Your task to perform on an android device: Open calendar and show me the first week of next month Image 0: 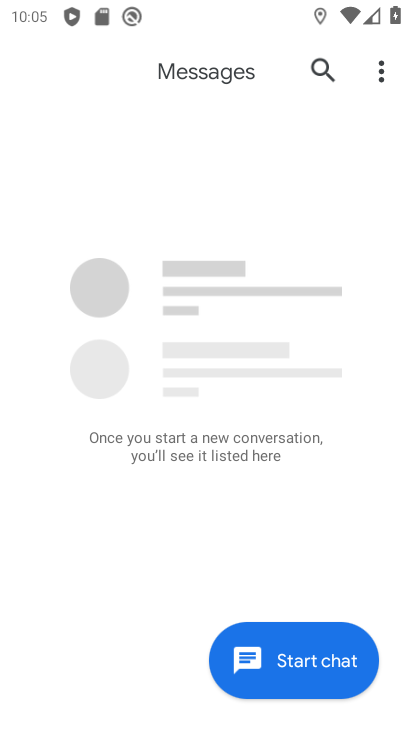
Step 0: press home button
Your task to perform on an android device: Open calendar and show me the first week of next month Image 1: 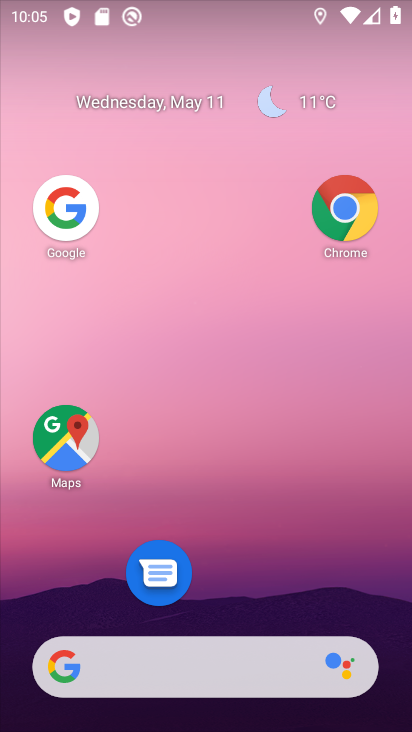
Step 1: drag from (207, 625) to (392, 465)
Your task to perform on an android device: Open calendar and show me the first week of next month Image 2: 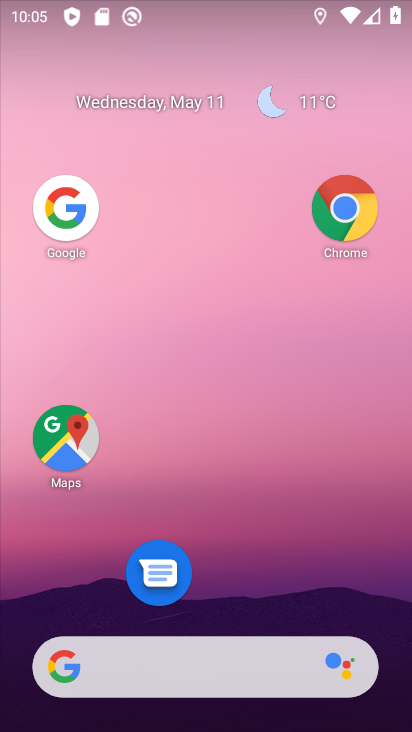
Step 2: drag from (228, 604) to (308, 17)
Your task to perform on an android device: Open calendar and show me the first week of next month Image 3: 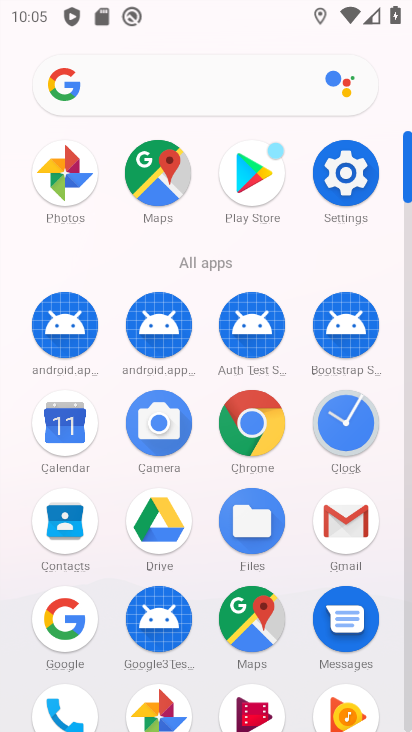
Step 3: click (49, 442)
Your task to perform on an android device: Open calendar and show me the first week of next month Image 4: 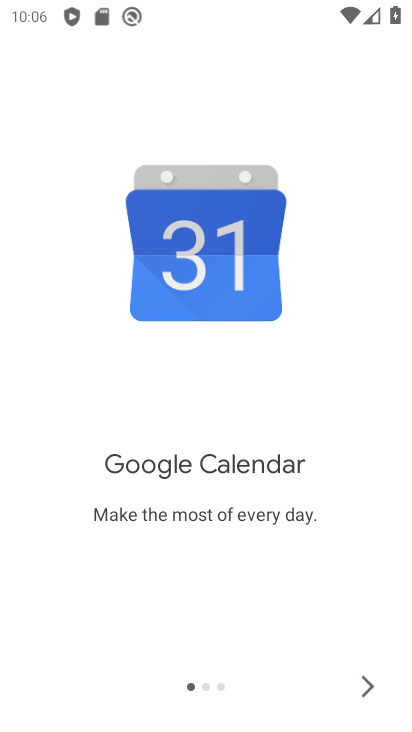
Step 4: click (349, 687)
Your task to perform on an android device: Open calendar and show me the first week of next month Image 5: 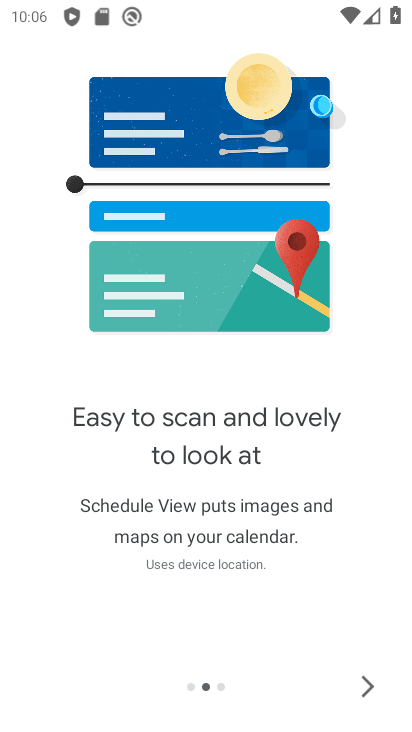
Step 5: click (349, 687)
Your task to perform on an android device: Open calendar and show me the first week of next month Image 6: 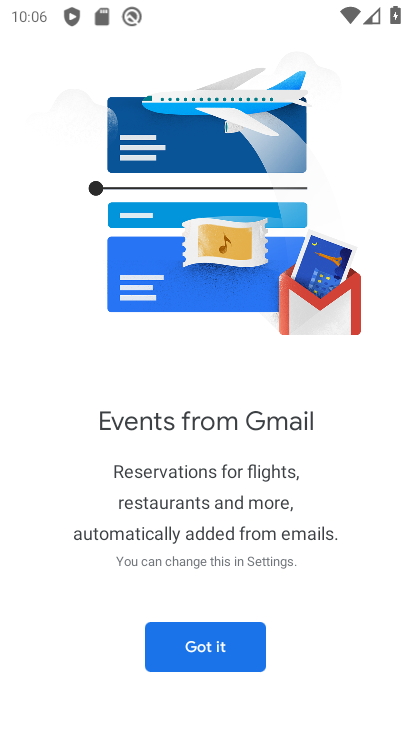
Step 6: click (234, 651)
Your task to perform on an android device: Open calendar and show me the first week of next month Image 7: 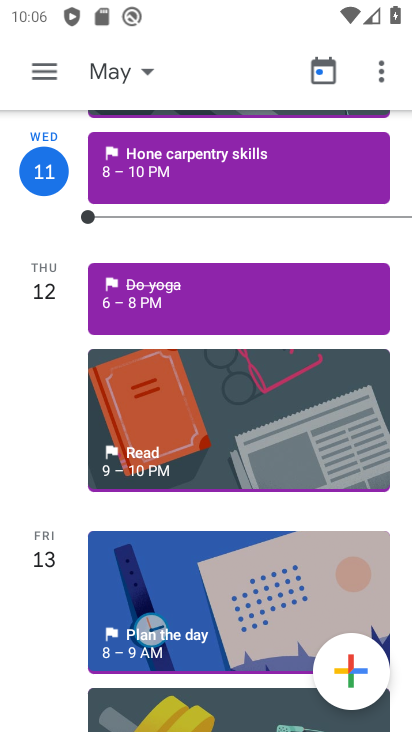
Step 7: click (38, 80)
Your task to perform on an android device: Open calendar and show me the first week of next month Image 8: 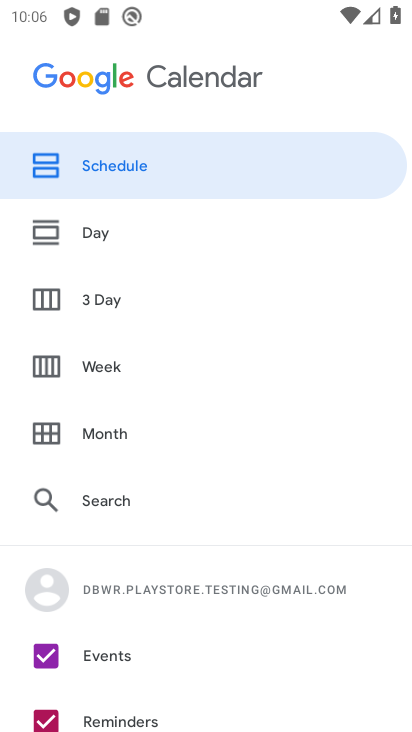
Step 8: click (99, 359)
Your task to perform on an android device: Open calendar and show me the first week of next month Image 9: 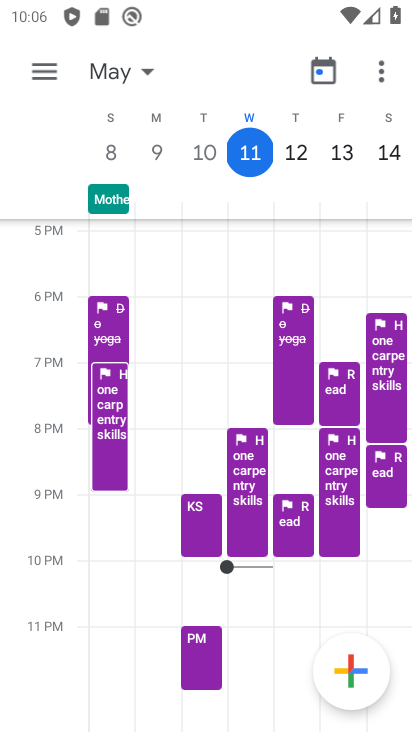
Step 9: task complete